Your task to perform on an android device: Open privacy settings Image 0: 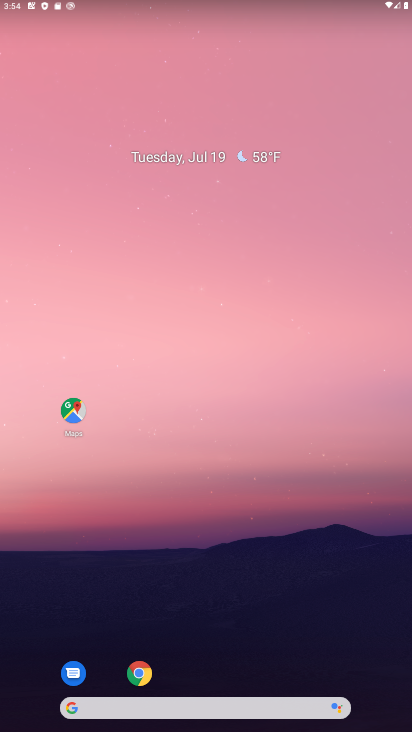
Step 0: drag from (368, 643) to (264, 256)
Your task to perform on an android device: Open privacy settings Image 1: 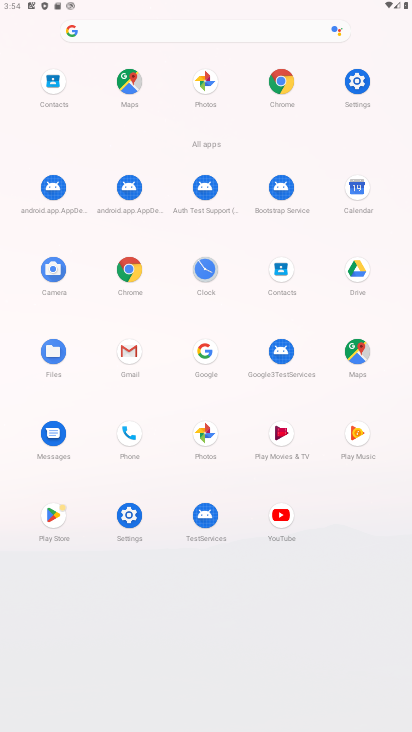
Step 1: click (129, 516)
Your task to perform on an android device: Open privacy settings Image 2: 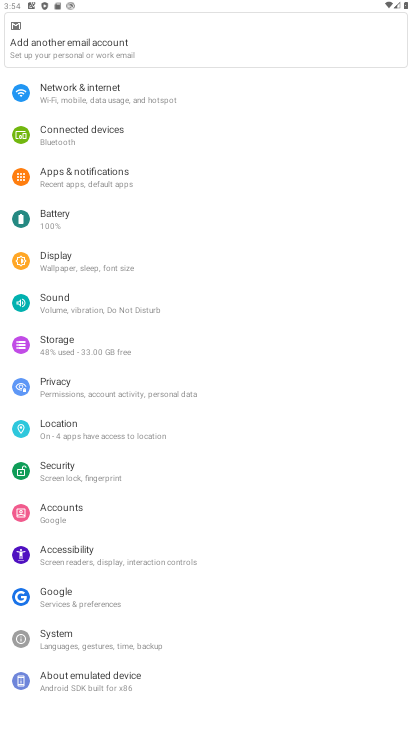
Step 2: click (60, 391)
Your task to perform on an android device: Open privacy settings Image 3: 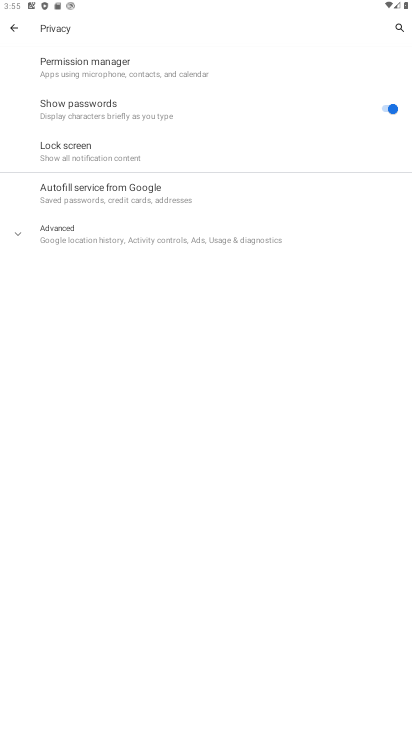
Step 3: task complete